Your task to perform on an android device: Toggle the flashlight Image 0: 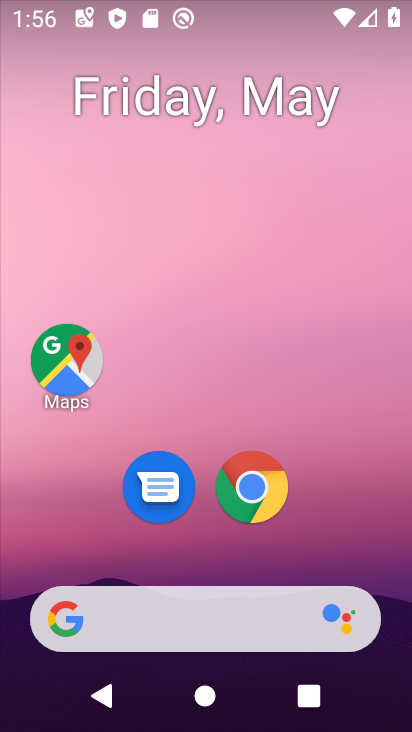
Step 0: drag from (184, 0) to (219, 591)
Your task to perform on an android device: Toggle the flashlight Image 1: 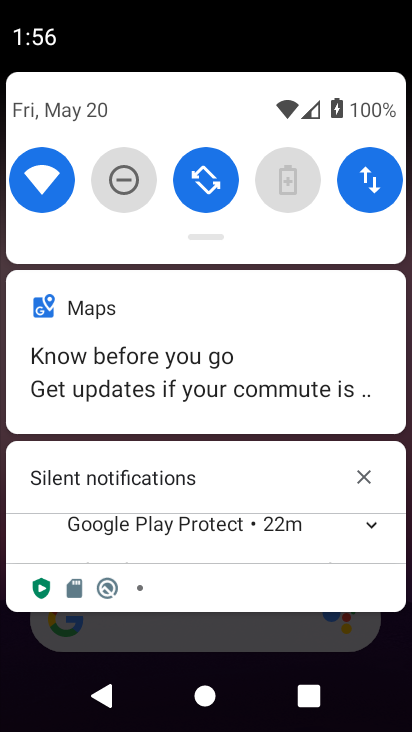
Step 1: task complete